Your task to perform on an android device: Go to eBay Image 0: 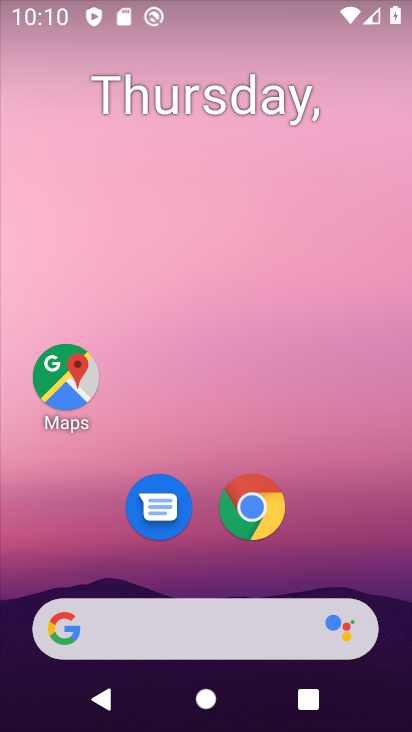
Step 0: drag from (369, 528) to (325, 17)
Your task to perform on an android device: Go to eBay Image 1: 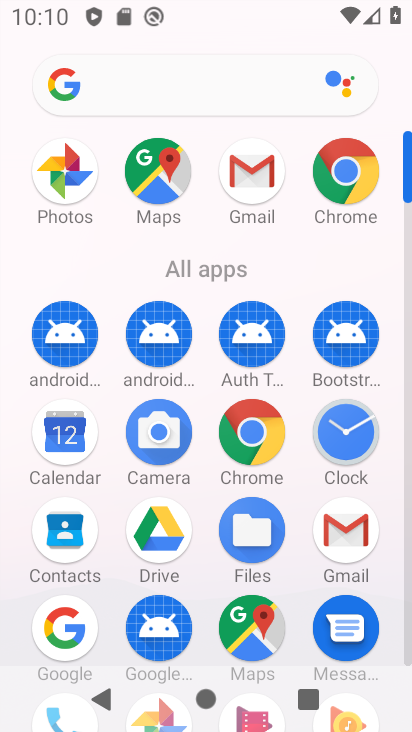
Step 1: click (344, 165)
Your task to perform on an android device: Go to eBay Image 2: 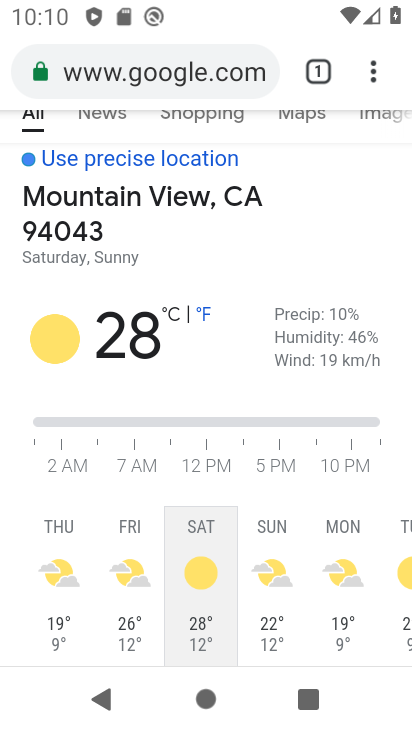
Step 2: click (160, 49)
Your task to perform on an android device: Go to eBay Image 3: 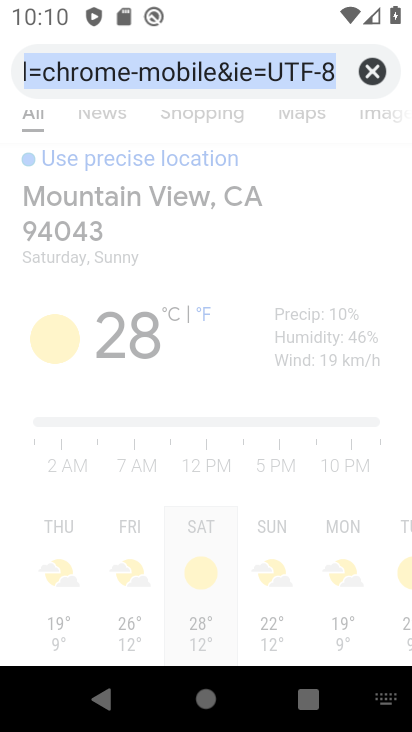
Step 3: click (375, 69)
Your task to perform on an android device: Go to eBay Image 4: 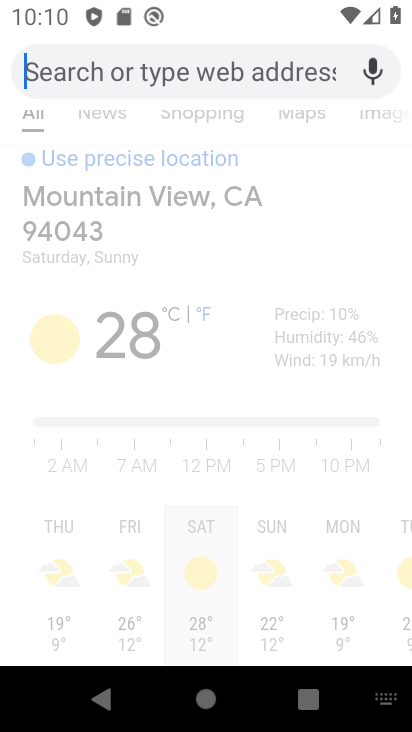
Step 4: type "eBay"
Your task to perform on an android device: Go to eBay Image 5: 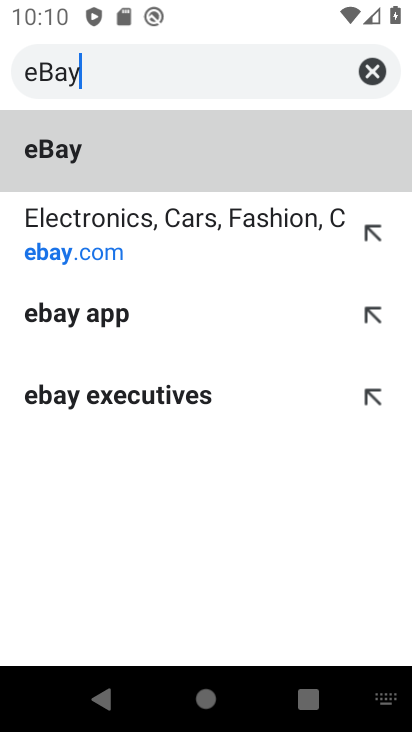
Step 5: type ""
Your task to perform on an android device: Go to eBay Image 6: 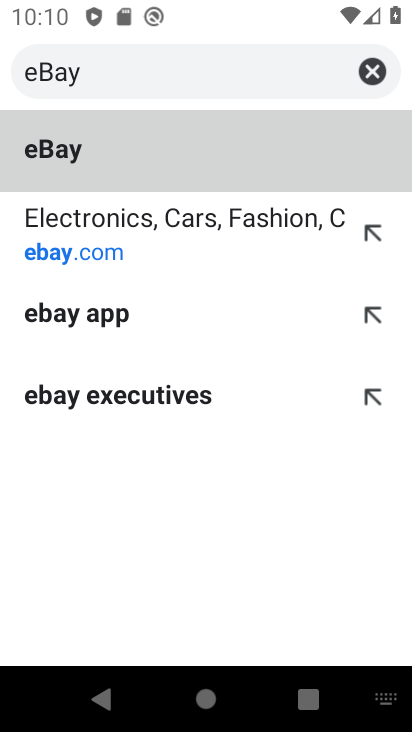
Step 6: click (99, 231)
Your task to perform on an android device: Go to eBay Image 7: 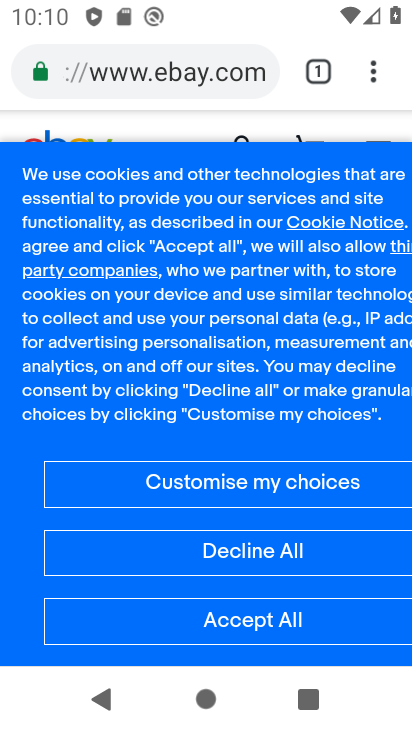
Step 7: click (230, 617)
Your task to perform on an android device: Go to eBay Image 8: 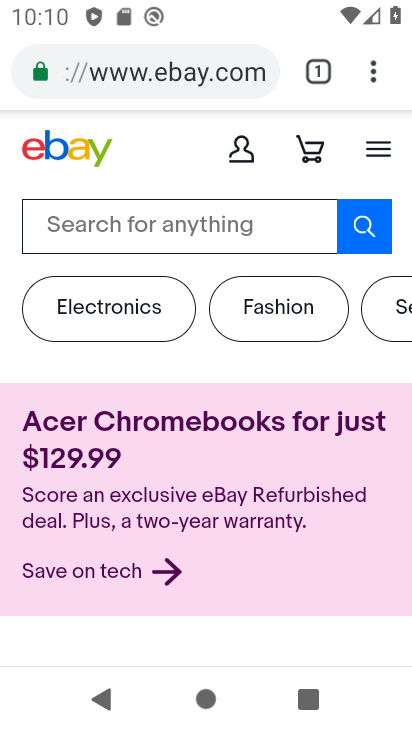
Step 8: task complete